Your task to perform on an android device: Open wifi settings Image 0: 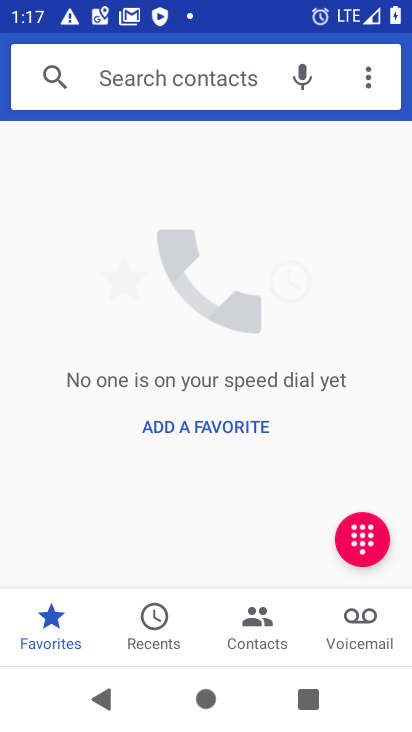
Step 0: press home button
Your task to perform on an android device: Open wifi settings Image 1: 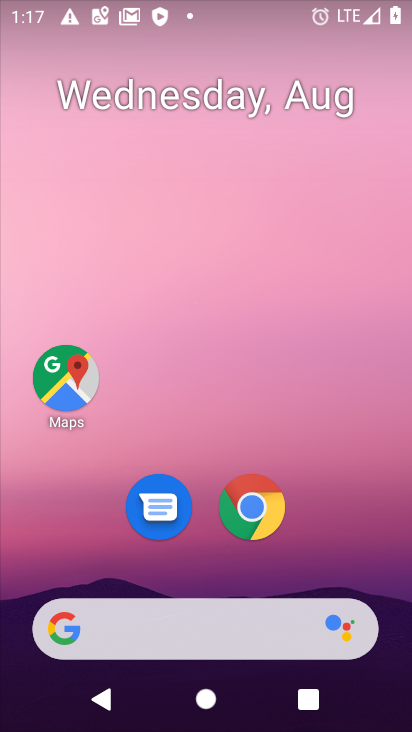
Step 1: drag from (237, 564) to (183, 727)
Your task to perform on an android device: Open wifi settings Image 2: 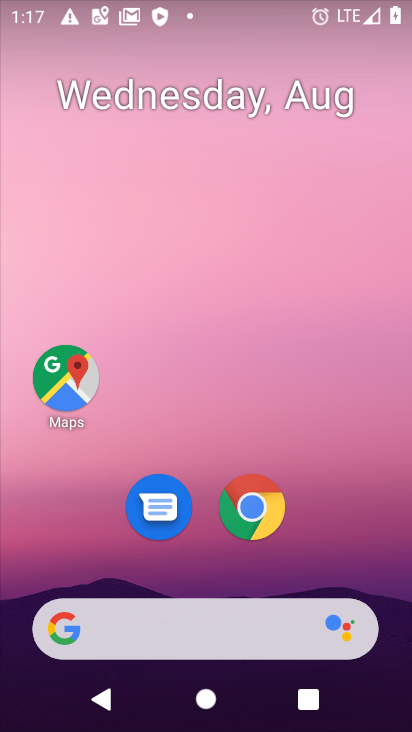
Step 2: drag from (231, 581) to (190, 5)
Your task to perform on an android device: Open wifi settings Image 3: 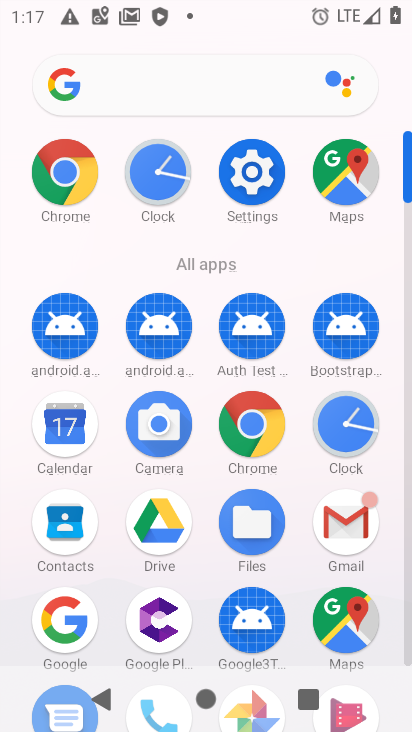
Step 3: click (236, 165)
Your task to perform on an android device: Open wifi settings Image 4: 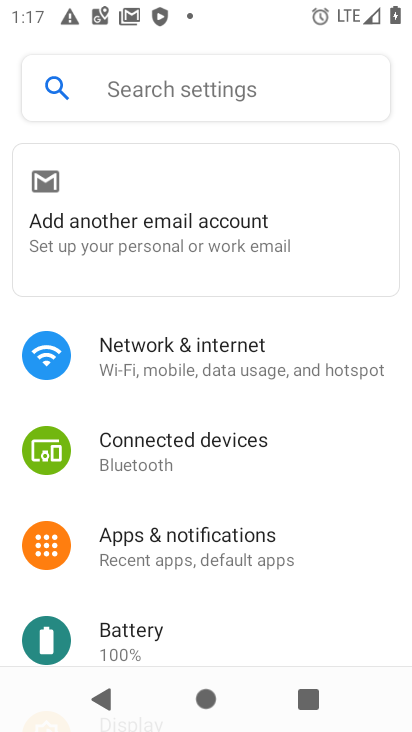
Step 4: click (222, 342)
Your task to perform on an android device: Open wifi settings Image 5: 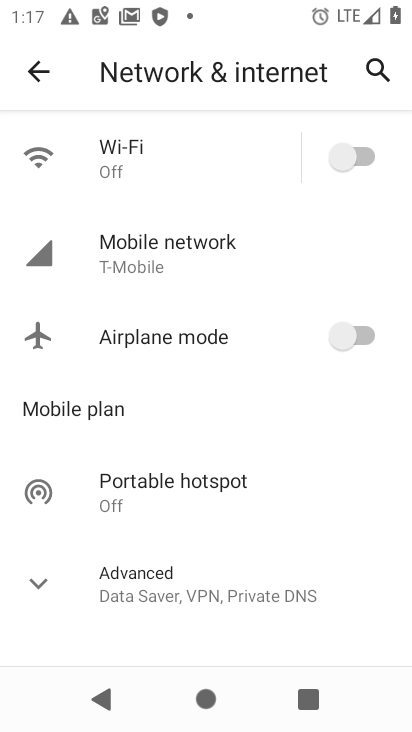
Step 5: click (115, 142)
Your task to perform on an android device: Open wifi settings Image 6: 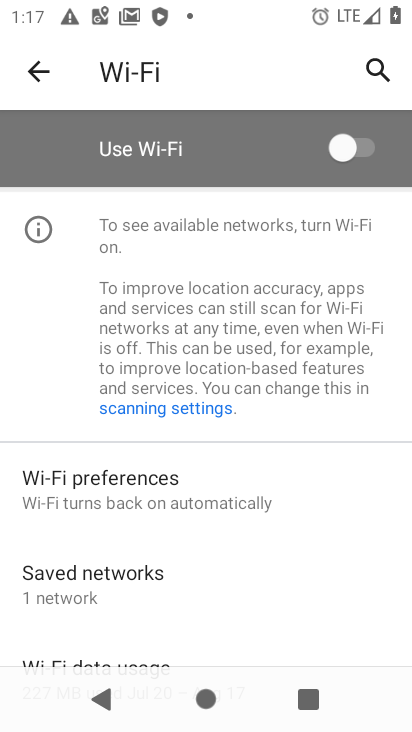
Step 6: task complete